Your task to perform on an android device: Do I have any events this weekend? Image 0: 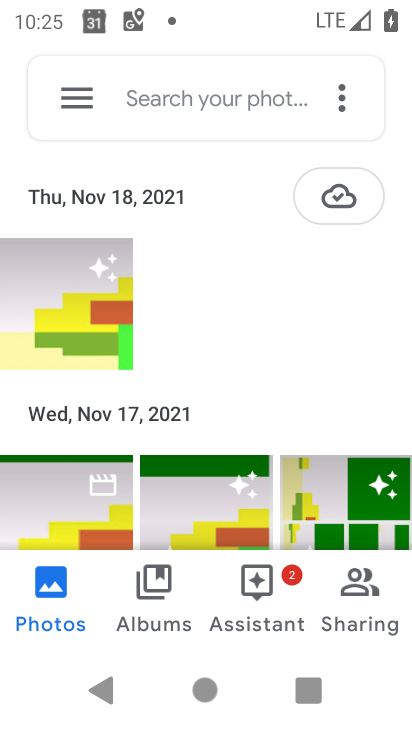
Step 0: press home button
Your task to perform on an android device: Do I have any events this weekend? Image 1: 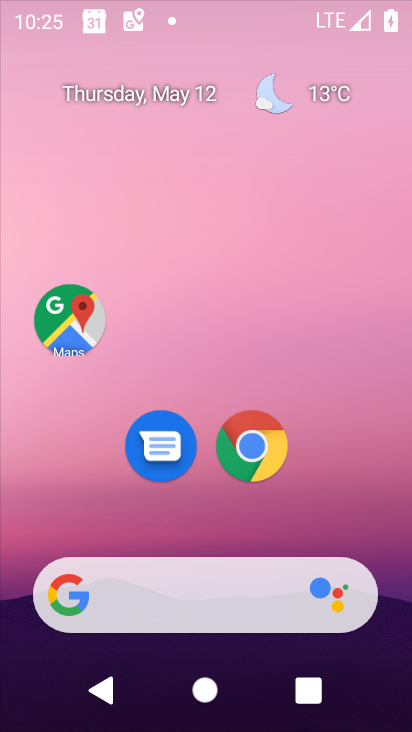
Step 1: drag from (237, 621) to (224, 0)
Your task to perform on an android device: Do I have any events this weekend? Image 2: 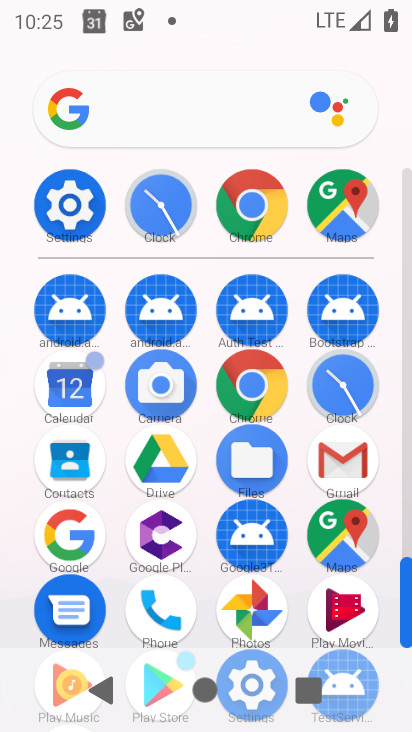
Step 2: click (87, 392)
Your task to perform on an android device: Do I have any events this weekend? Image 3: 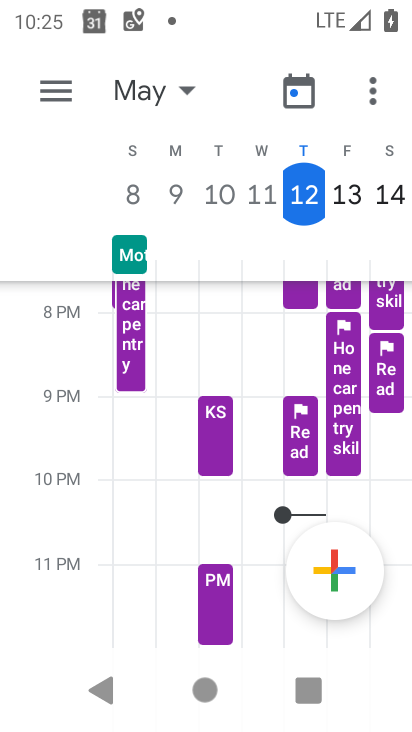
Step 3: click (175, 91)
Your task to perform on an android device: Do I have any events this weekend? Image 4: 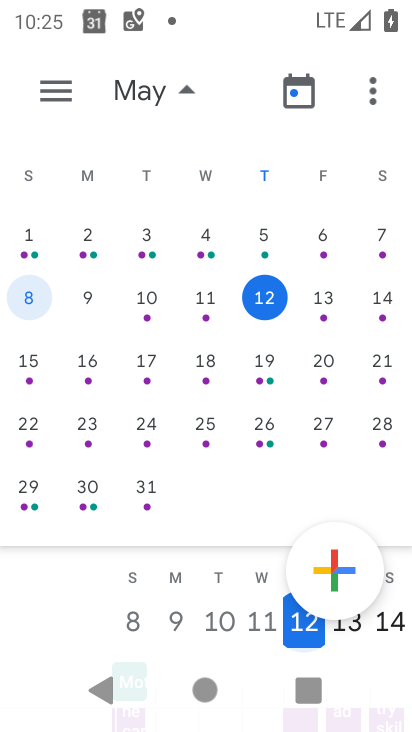
Step 4: click (379, 307)
Your task to perform on an android device: Do I have any events this weekend? Image 5: 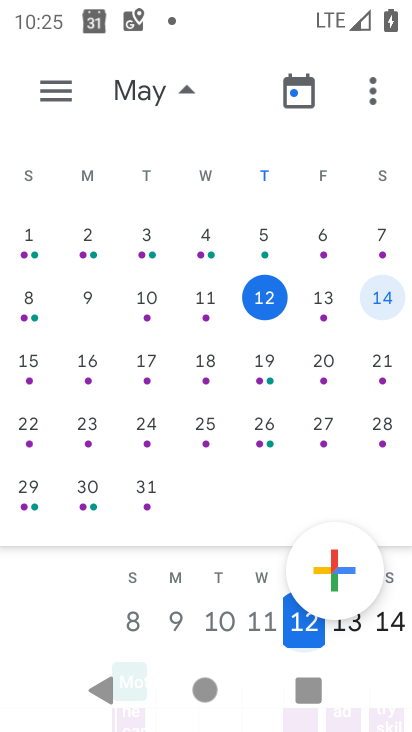
Step 5: task complete